Your task to perform on an android device: See recent photos Image 0: 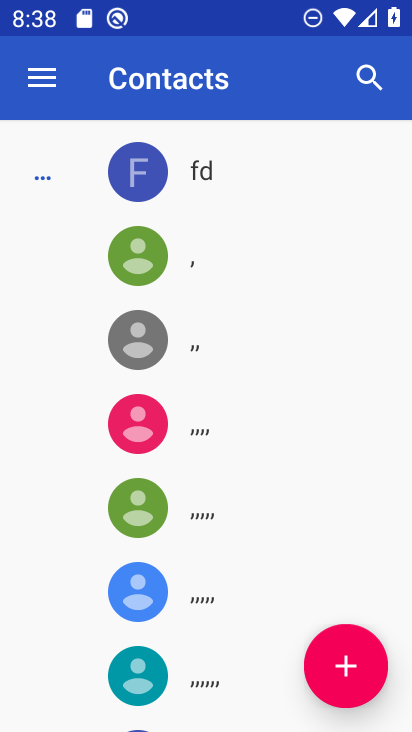
Step 0: press home button
Your task to perform on an android device: See recent photos Image 1: 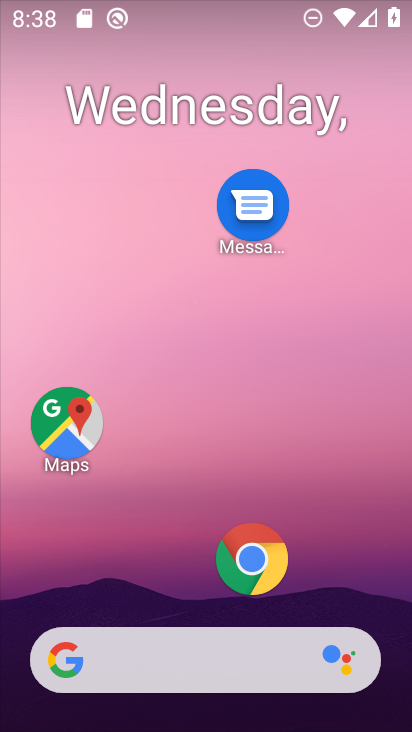
Step 1: drag from (156, 656) to (142, 430)
Your task to perform on an android device: See recent photos Image 2: 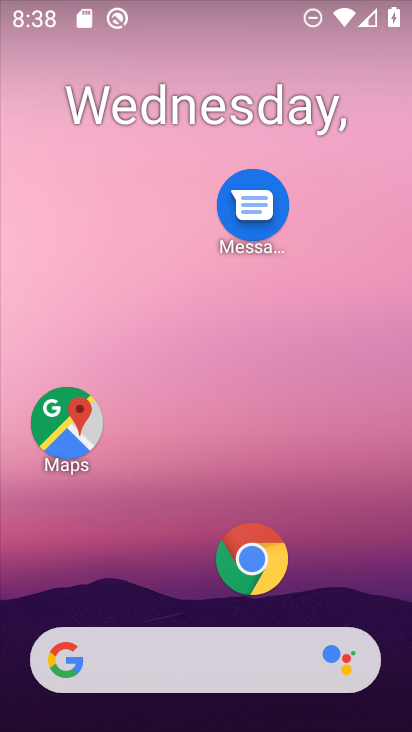
Step 2: drag from (157, 556) to (179, 150)
Your task to perform on an android device: See recent photos Image 3: 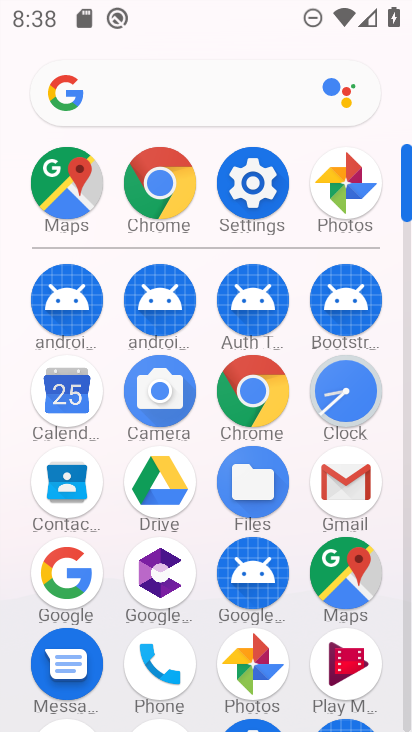
Step 3: click (241, 675)
Your task to perform on an android device: See recent photos Image 4: 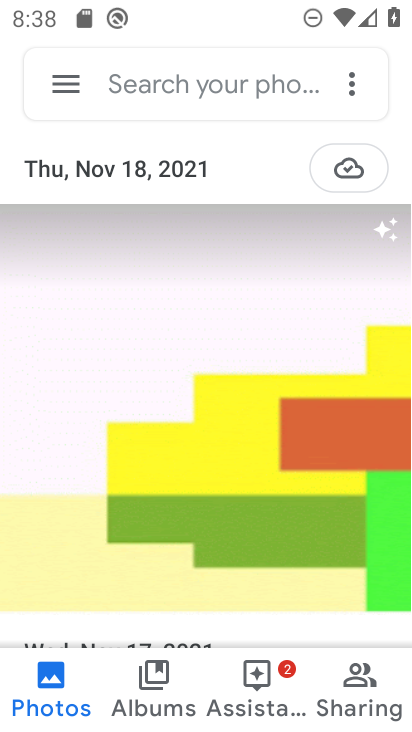
Step 4: task complete